Your task to perform on an android device: What's on my calendar tomorrow? Image 0: 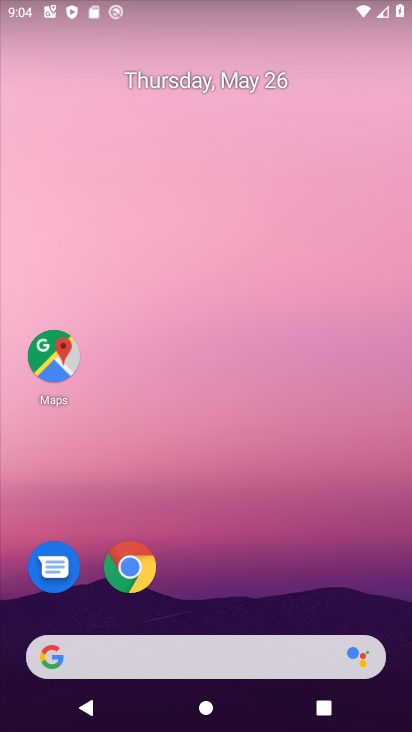
Step 0: drag from (121, 622) to (296, 120)
Your task to perform on an android device: What's on my calendar tomorrow? Image 1: 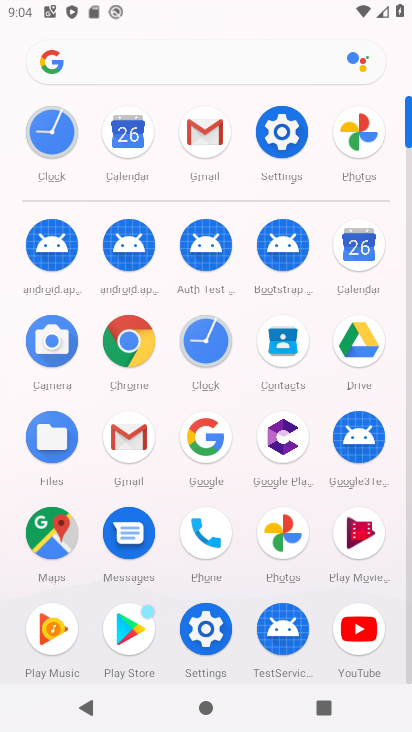
Step 1: click (358, 258)
Your task to perform on an android device: What's on my calendar tomorrow? Image 2: 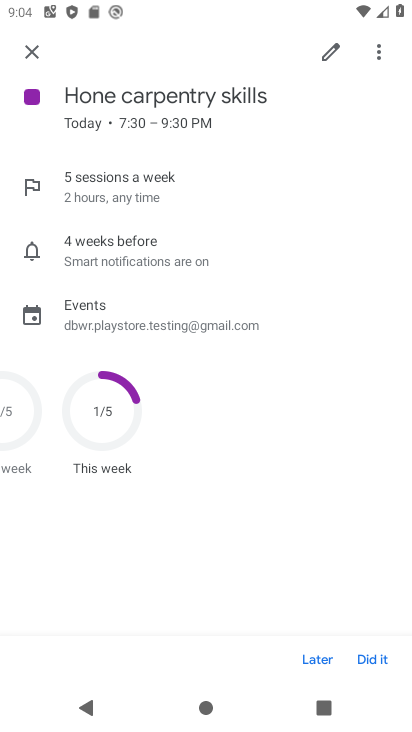
Step 2: click (28, 54)
Your task to perform on an android device: What's on my calendar tomorrow? Image 3: 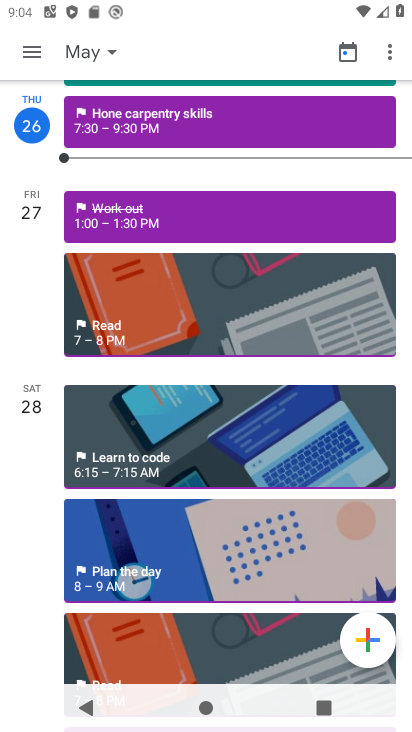
Step 3: click (88, 48)
Your task to perform on an android device: What's on my calendar tomorrow? Image 4: 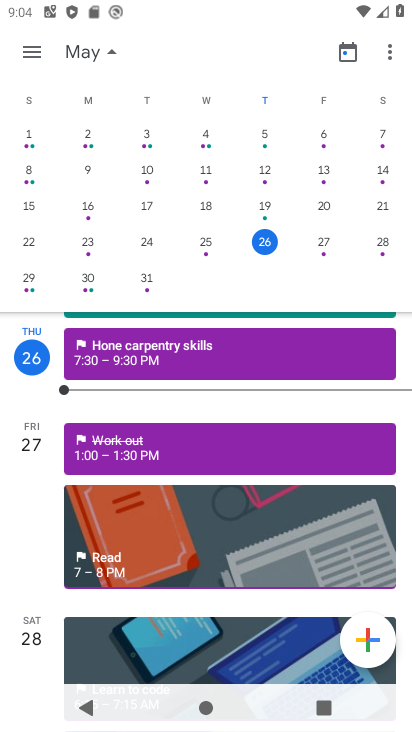
Step 4: click (323, 243)
Your task to perform on an android device: What's on my calendar tomorrow? Image 5: 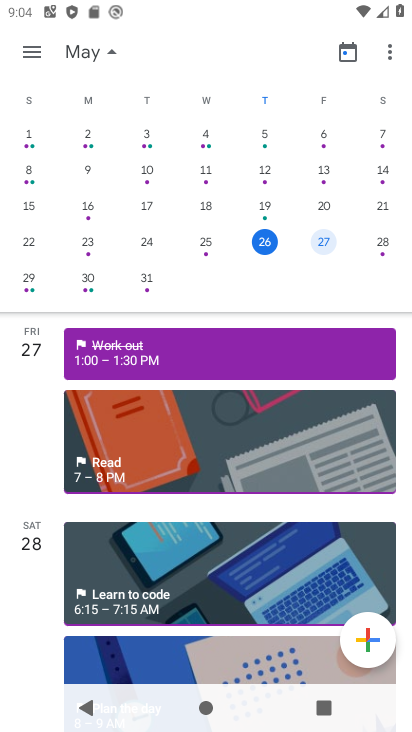
Step 5: click (41, 47)
Your task to perform on an android device: What's on my calendar tomorrow? Image 6: 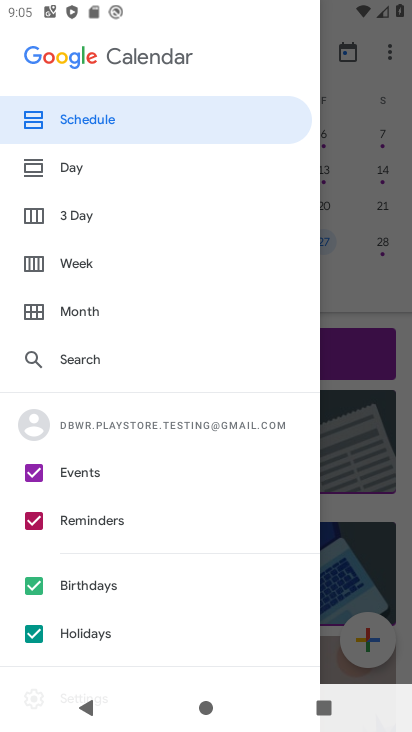
Step 6: click (87, 171)
Your task to perform on an android device: What's on my calendar tomorrow? Image 7: 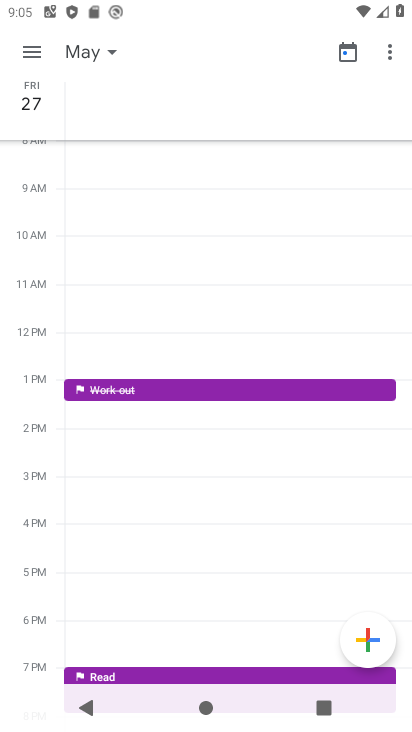
Step 7: click (30, 50)
Your task to perform on an android device: What's on my calendar tomorrow? Image 8: 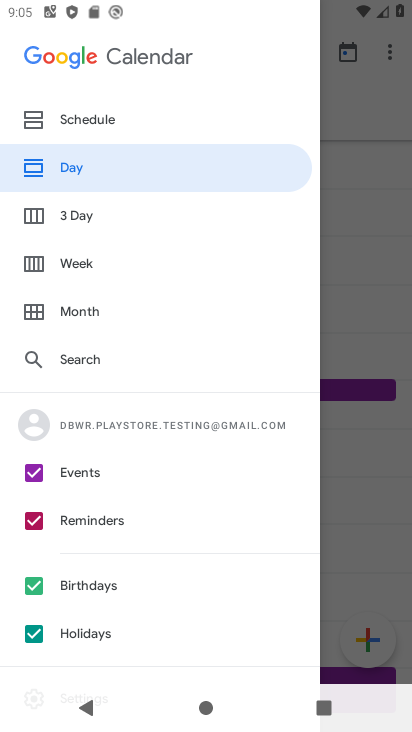
Step 8: click (103, 119)
Your task to perform on an android device: What's on my calendar tomorrow? Image 9: 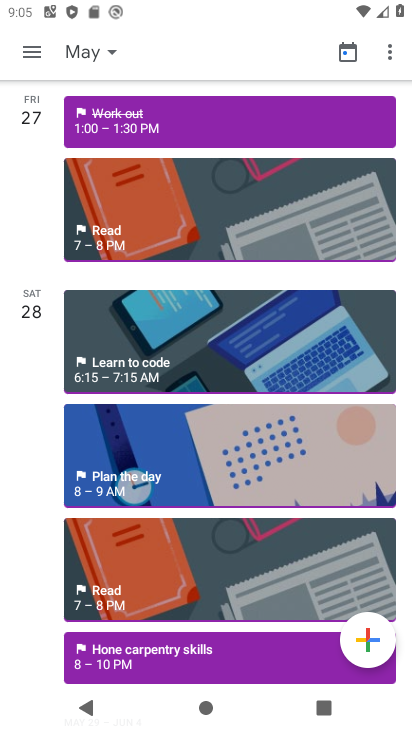
Step 9: click (152, 122)
Your task to perform on an android device: What's on my calendar tomorrow? Image 10: 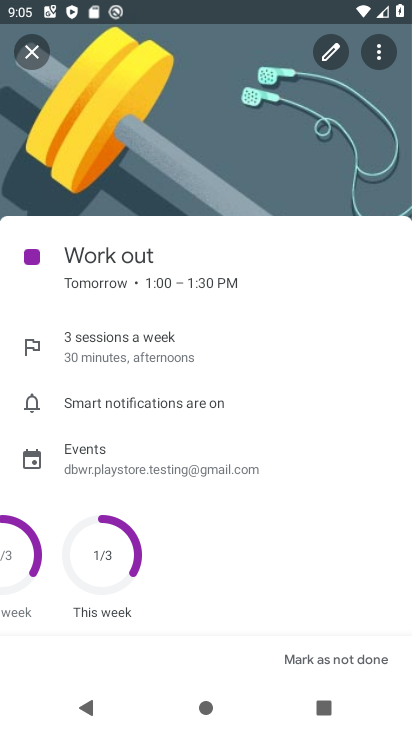
Step 10: task complete